Your task to perform on an android device: turn off notifications in google photos Image 0: 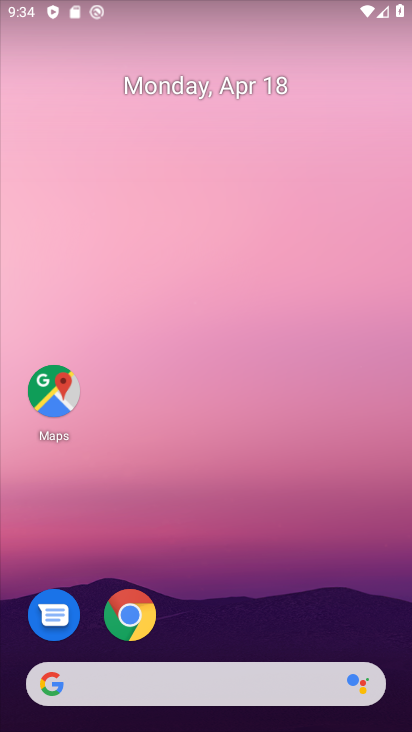
Step 0: drag from (238, 371) to (253, 258)
Your task to perform on an android device: turn off notifications in google photos Image 1: 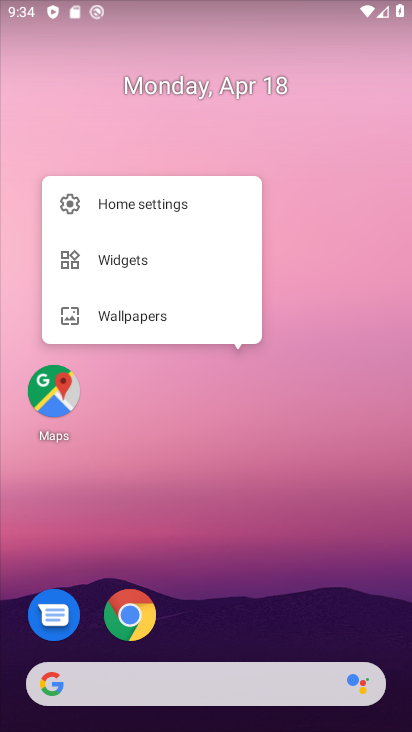
Step 1: drag from (238, 583) to (326, 122)
Your task to perform on an android device: turn off notifications in google photos Image 2: 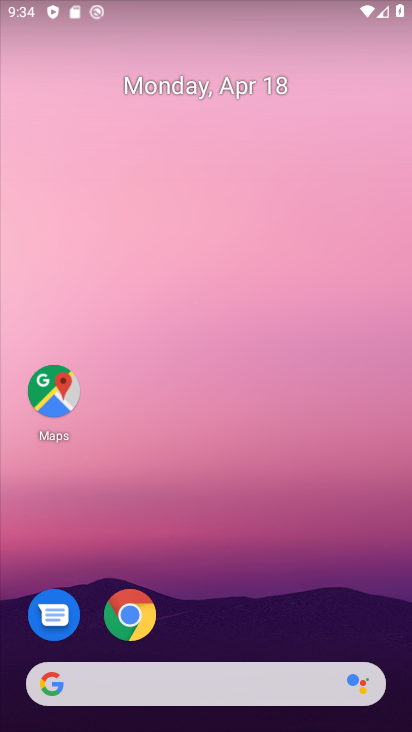
Step 2: drag from (229, 649) to (248, 208)
Your task to perform on an android device: turn off notifications in google photos Image 3: 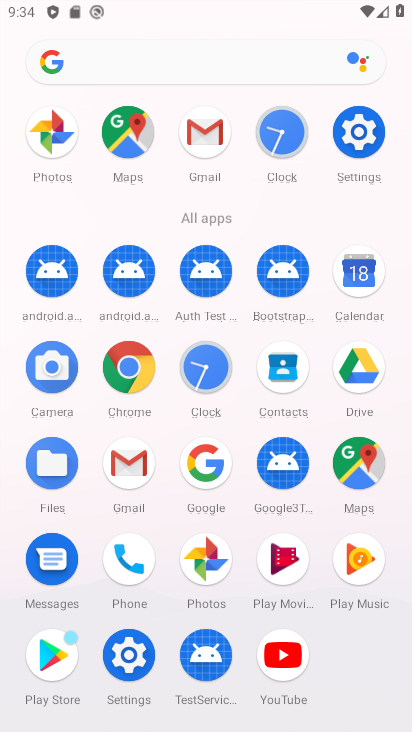
Step 3: click (205, 562)
Your task to perform on an android device: turn off notifications in google photos Image 4: 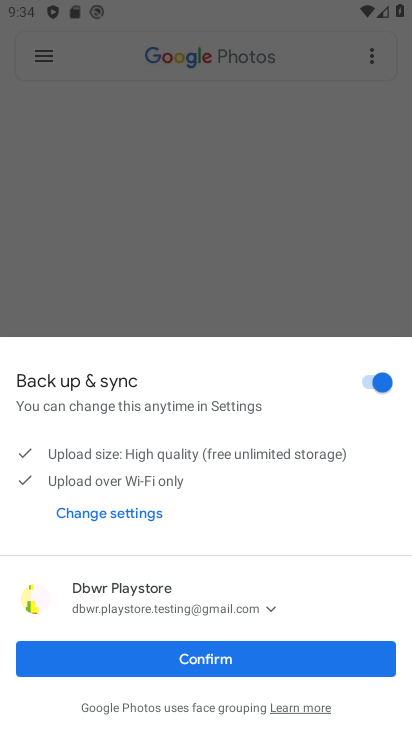
Step 4: click (192, 653)
Your task to perform on an android device: turn off notifications in google photos Image 5: 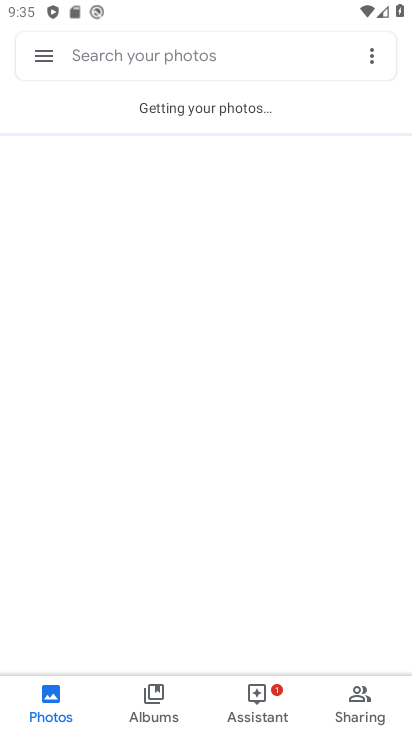
Step 5: click (41, 58)
Your task to perform on an android device: turn off notifications in google photos Image 6: 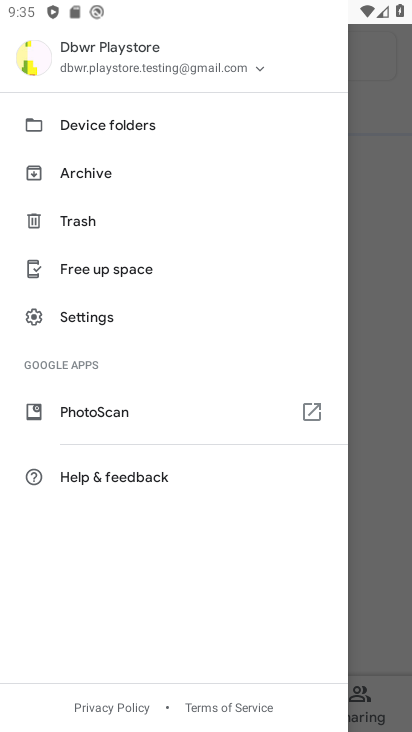
Step 6: click (98, 314)
Your task to perform on an android device: turn off notifications in google photos Image 7: 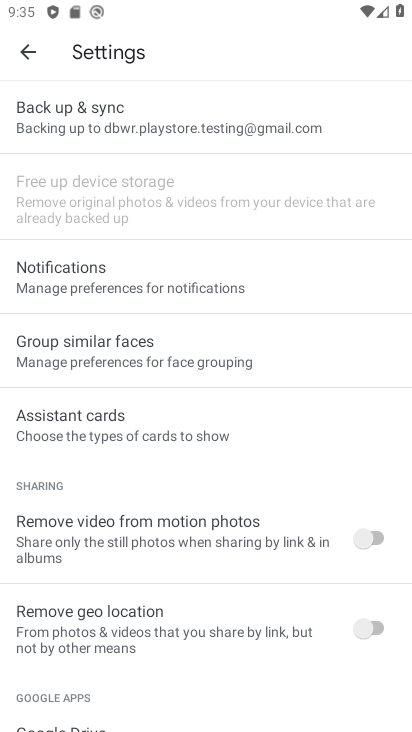
Step 7: click (55, 286)
Your task to perform on an android device: turn off notifications in google photos Image 8: 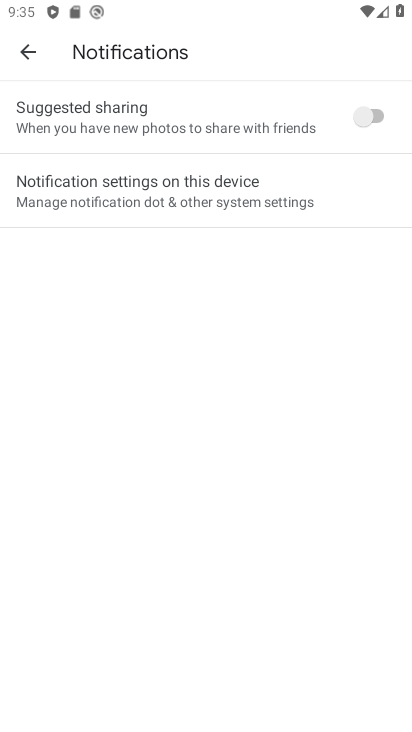
Step 8: click (247, 194)
Your task to perform on an android device: turn off notifications in google photos Image 9: 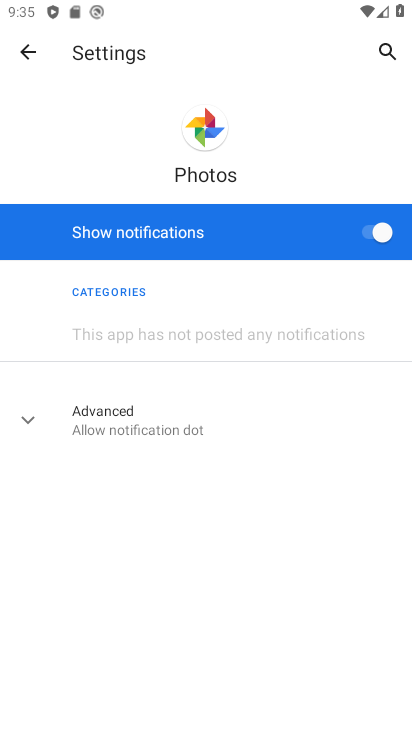
Step 9: click (364, 220)
Your task to perform on an android device: turn off notifications in google photos Image 10: 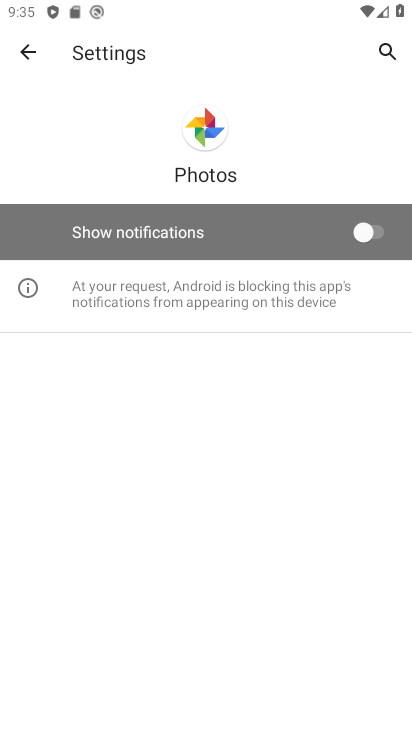
Step 10: task complete